Your task to perform on an android device: Open calendar and show me the first week of next month Image 0: 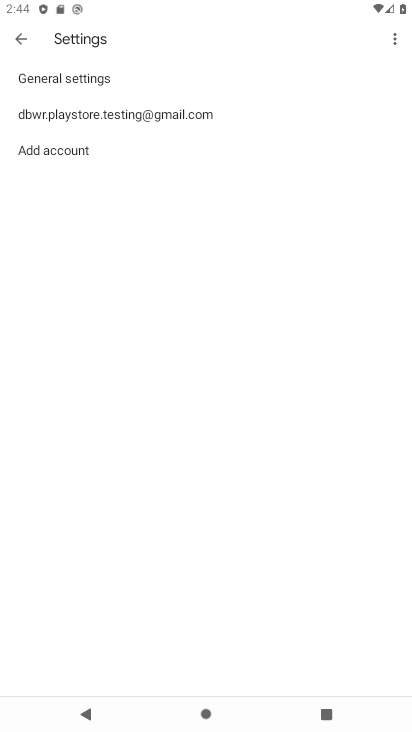
Step 0: press back button
Your task to perform on an android device: Open calendar and show me the first week of next month Image 1: 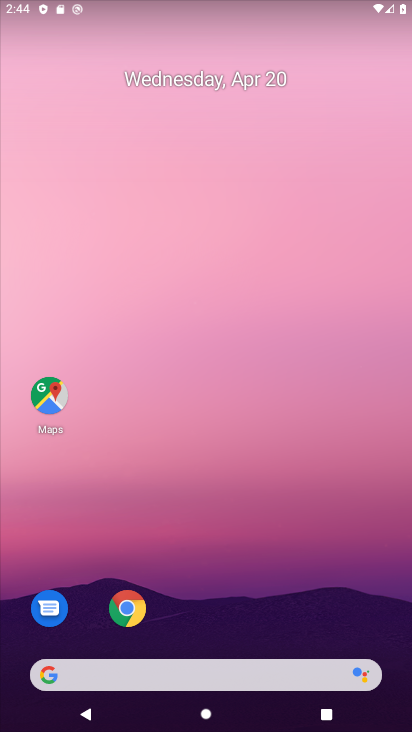
Step 1: drag from (227, 622) to (297, 66)
Your task to perform on an android device: Open calendar and show me the first week of next month Image 2: 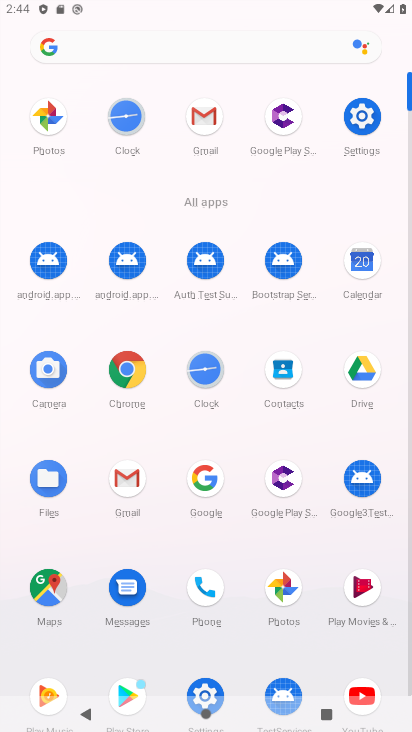
Step 2: click (367, 257)
Your task to perform on an android device: Open calendar and show me the first week of next month Image 3: 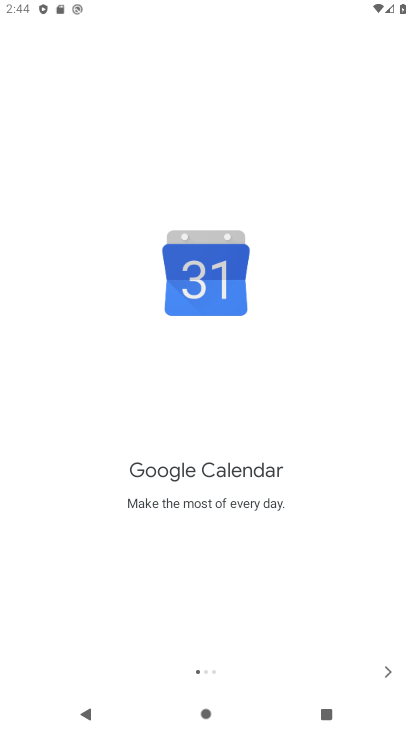
Step 3: click (388, 670)
Your task to perform on an android device: Open calendar and show me the first week of next month Image 4: 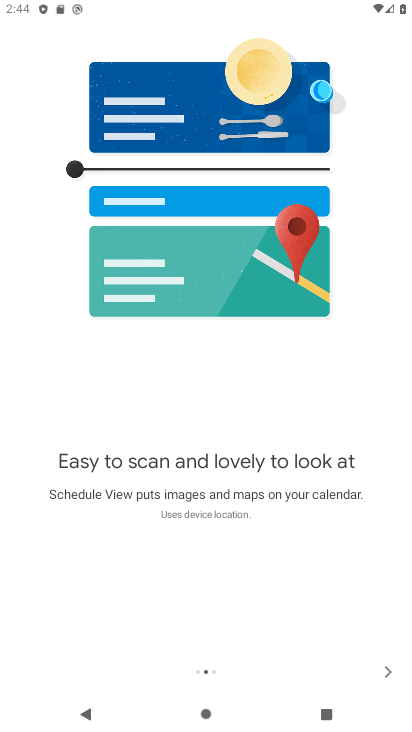
Step 4: click (392, 662)
Your task to perform on an android device: Open calendar and show me the first week of next month Image 5: 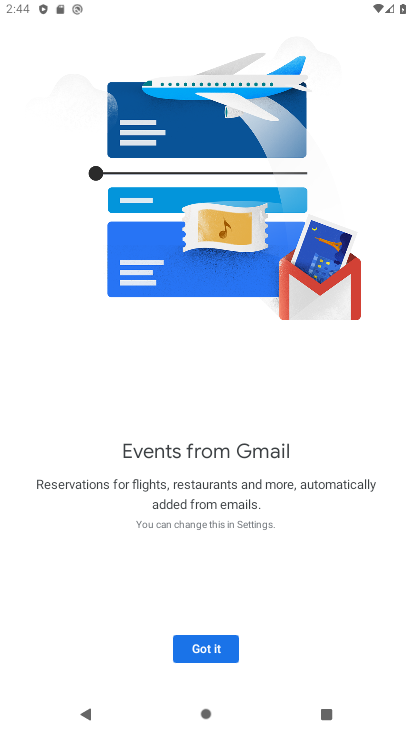
Step 5: click (227, 645)
Your task to perform on an android device: Open calendar and show me the first week of next month Image 6: 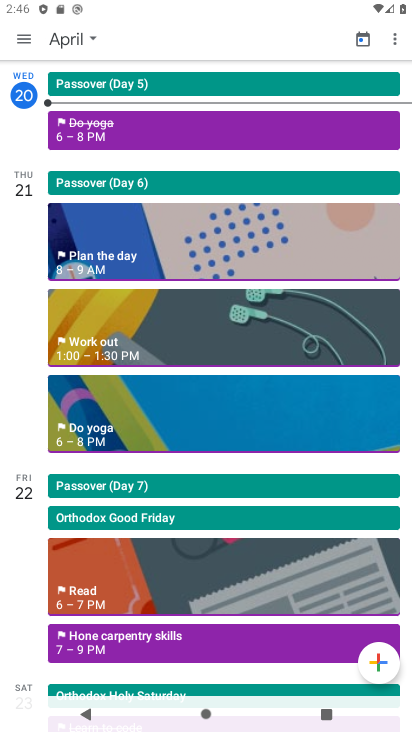
Step 6: click (80, 38)
Your task to perform on an android device: Open calendar and show me the first week of next month Image 7: 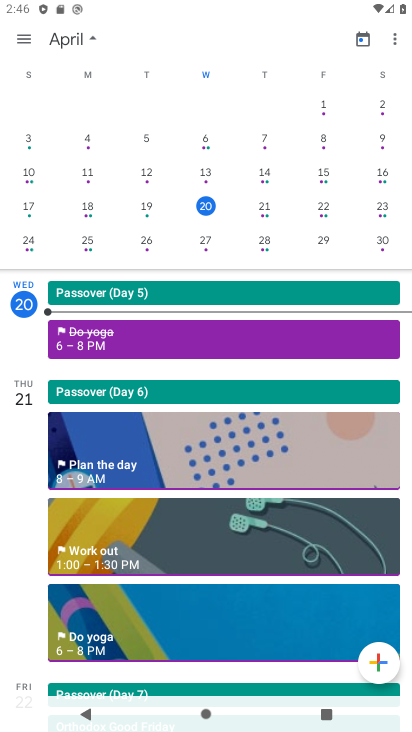
Step 7: drag from (382, 190) to (13, 141)
Your task to perform on an android device: Open calendar and show me the first week of next month Image 8: 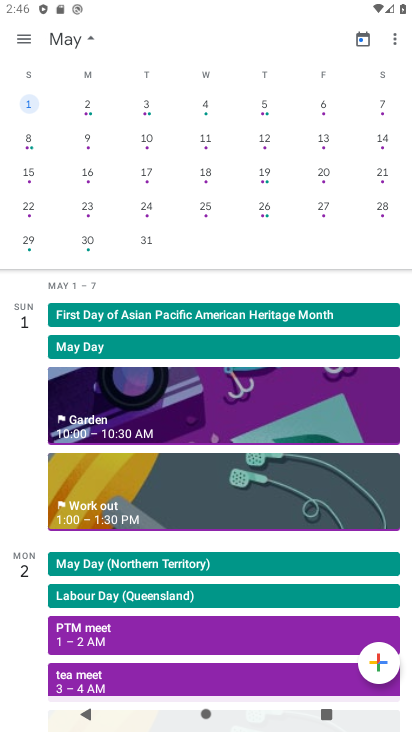
Step 8: click (91, 107)
Your task to perform on an android device: Open calendar and show me the first week of next month Image 9: 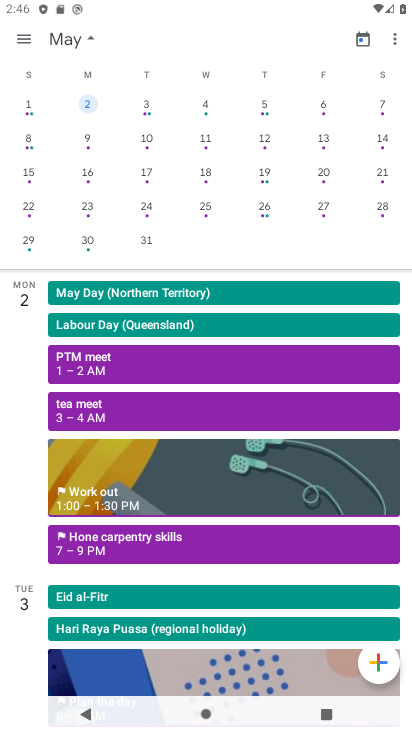
Step 9: task complete